Your task to perform on an android device: Clear the shopping cart on costco.com. Search for "macbook air" on costco.com, select the first entry, and add it to the cart. Image 0: 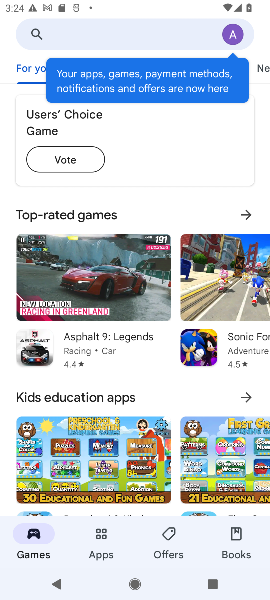
Step 0: press home button
Your task to perform on an android device: Clear the shopping cart on costco.com. Search for "macbook air" on costco.com, select the first entry, and add it to the cart. Image 1: 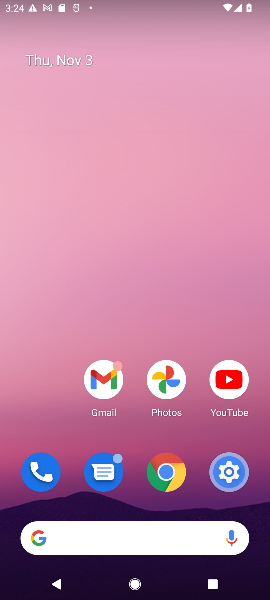
Step 1: click (134, 525)
Your task to perform on an android device: Clear the shopping cart on costco.com. Search for "macbook air" on costco.com, select the first entry, and add it to the cart. Image 2: 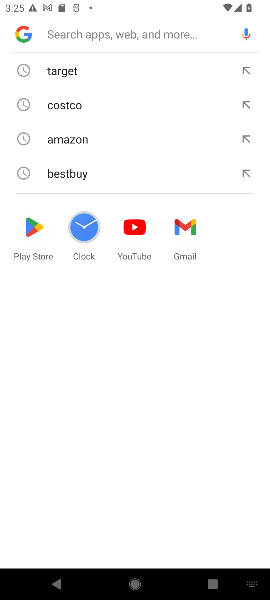
Step 2: type "cotco.com"
Your task to perform on an android device: Clear the shopping cart on costco.com. Search for "macbook air" on costco.com, select the first entry, and add it to the cart. Image 3: 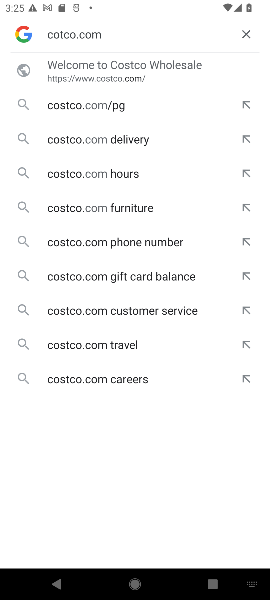
Step 3: click (137, 75)
Your task to perform on an android device: Clear the shopping cart on costco.com. Search for "macbook air" on costco.com, select the first entry, and add it to the cart. Image 4: 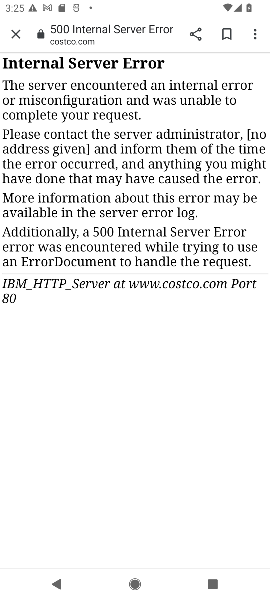
Step 4: task complete